Your task to perform on an android device: allow notifications from all sites in the chrome app Image 0: 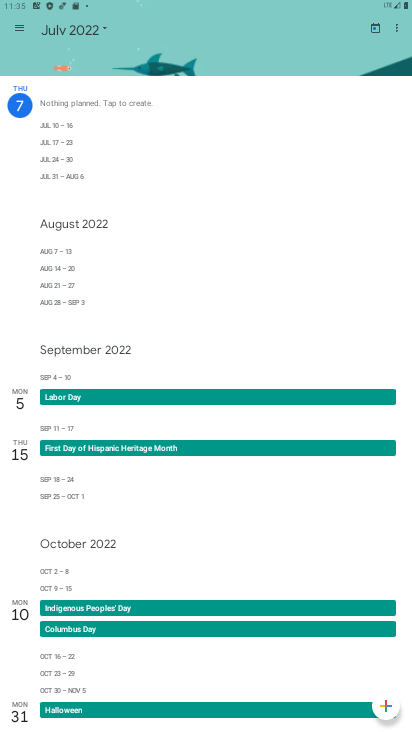
Step 0: press home button
Your task to perform on an android device: allow notifications from all sites in the chrome app Image 1: 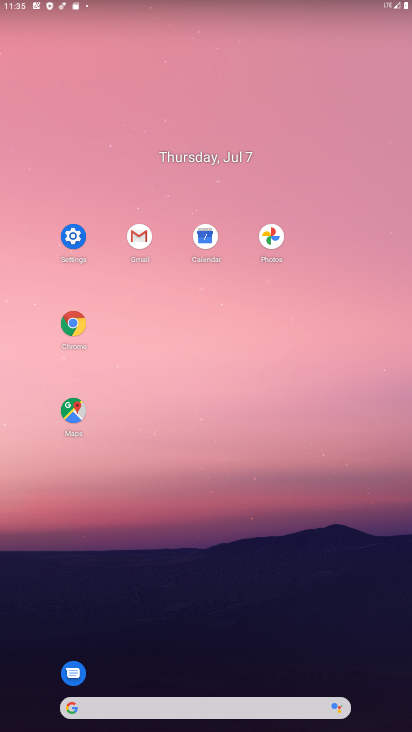
Step 1: click (70, 319)
Your task to perform on an android device: allow notifications from all sites in the chrome app Image 2: 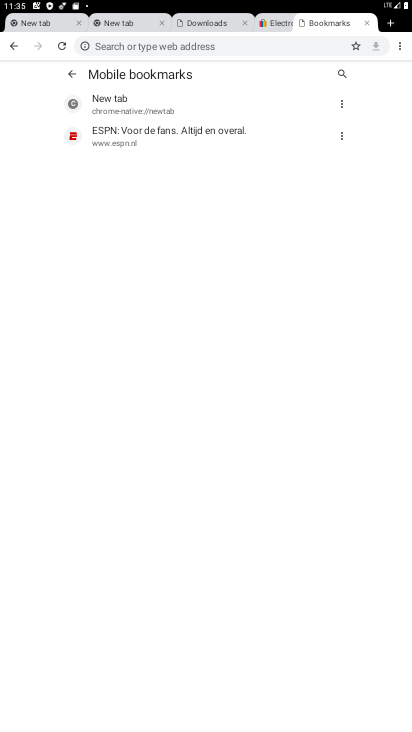
Step 2: click (396, 28)
Your task to perform on an android device: allow notifications from all sites in the chrome app Image 3: 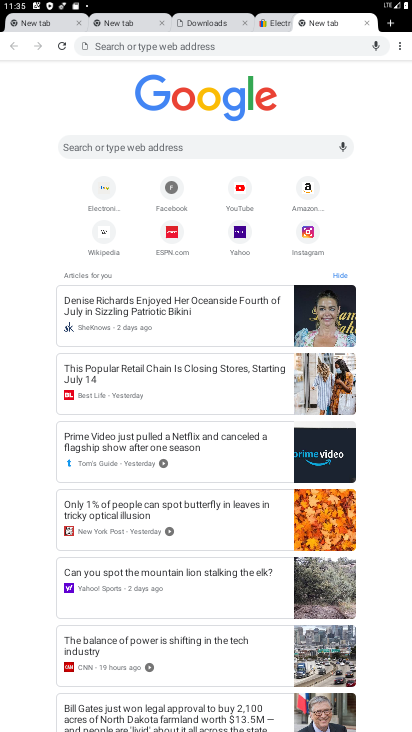
Step 3: click (395, 44)
Your task to perform on an android device: allow notifications from all sites in the chrome app Image 4: 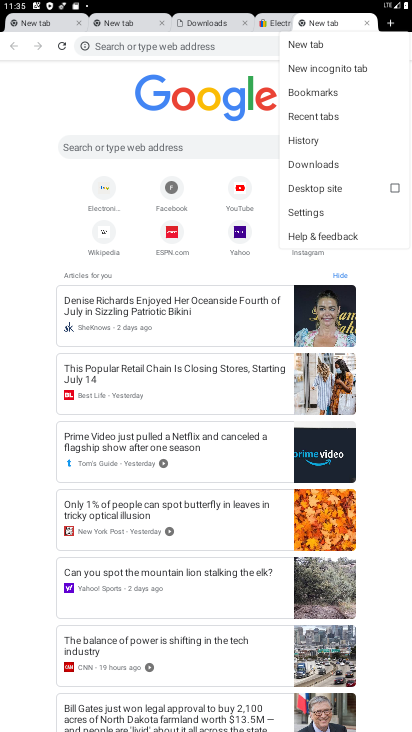
Step 4: click (319, 210)
Your task to perform on an android device: allow notifications from all sites in the chrome app Image 5: 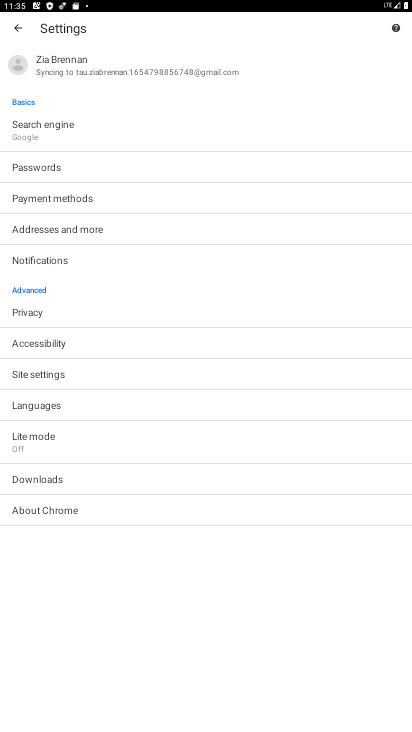
Step 5: click (82, 258)
Your task to perform on an android device: allow notifications from all sites in the chrome app Image 6: 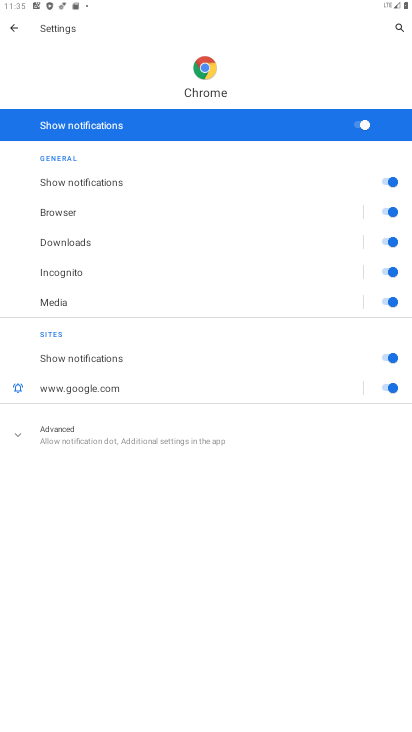
Step 6: task complete